Your task to perform on an android device: check the backup settings in the google photos Image 0: 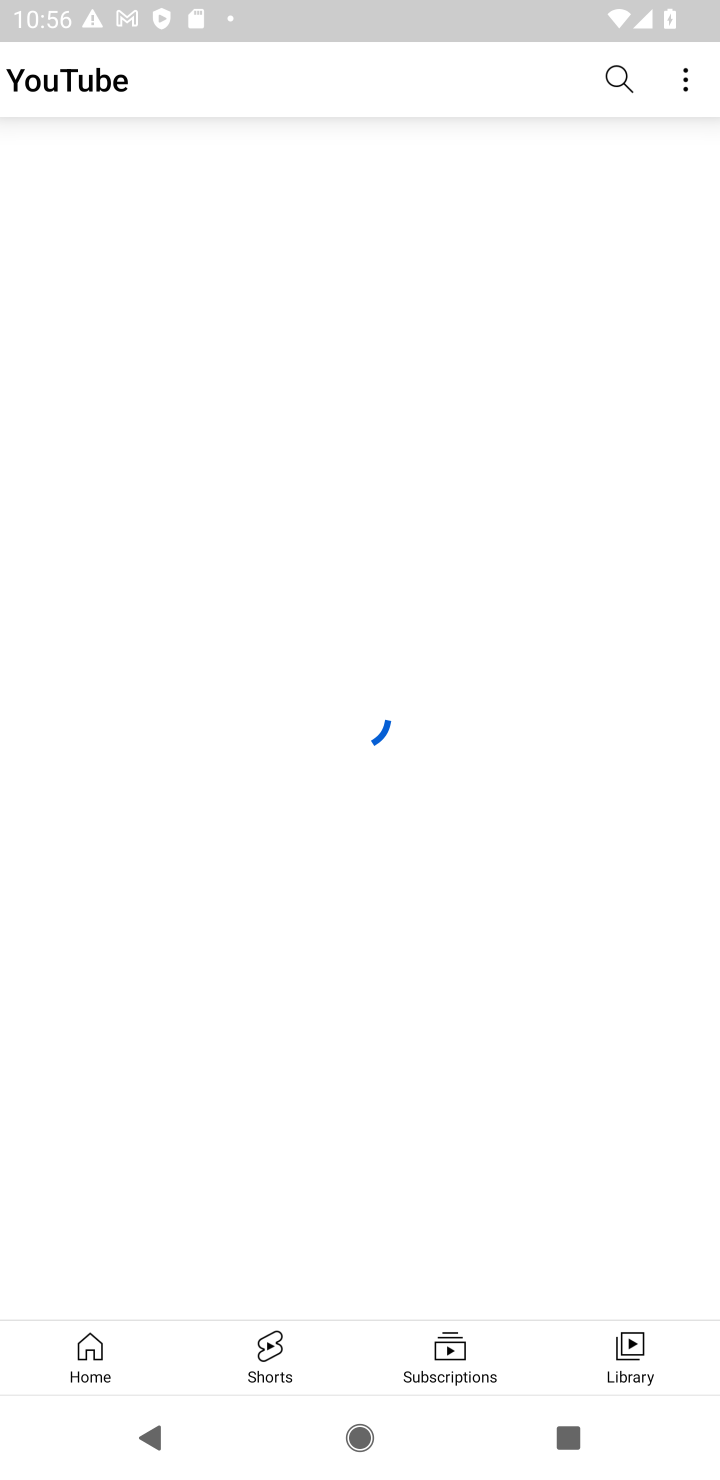
Step 0: press home button
Your task to perform on an android device: check the backup settings in the google photos Image 1: 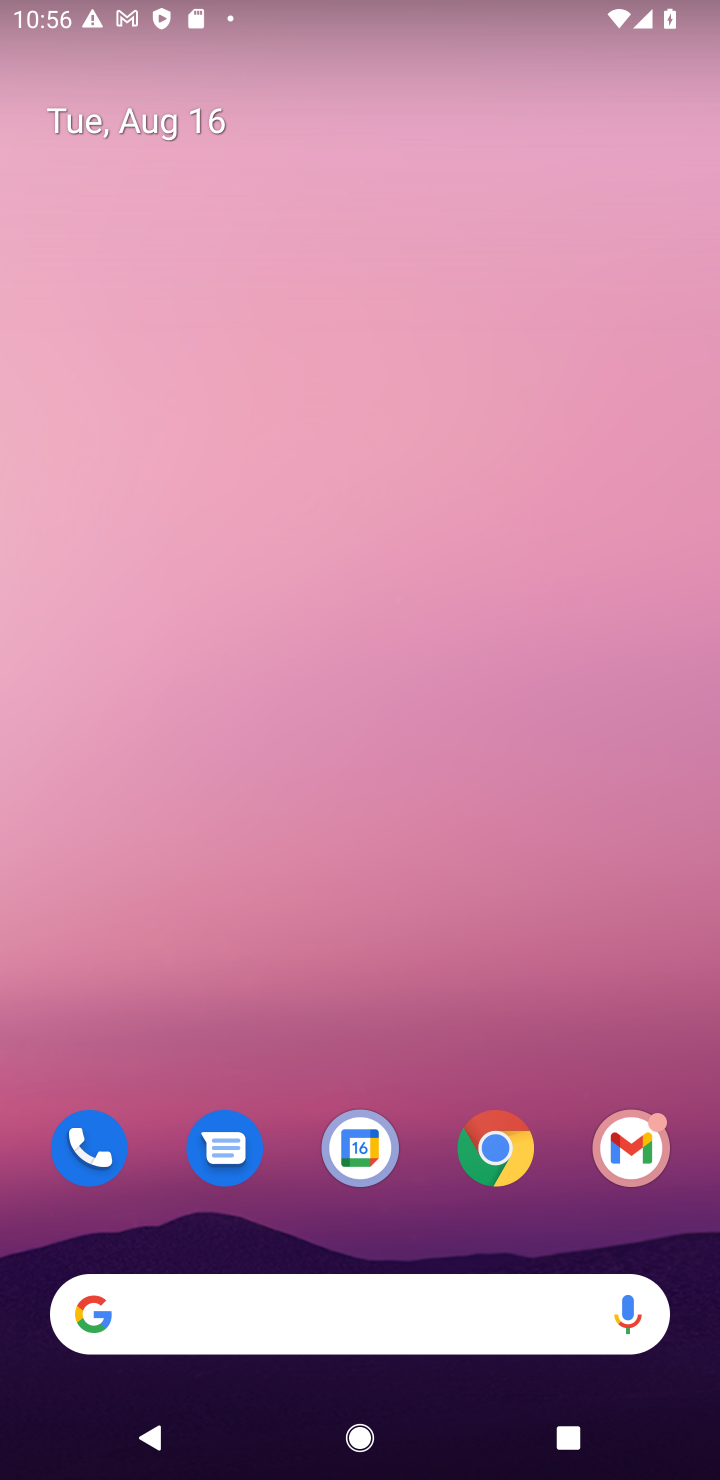
Step 1: drag from (393, 1051) to (344, 71)
Your task to perform on an android device: check the backup settings in the google photos Image 2: 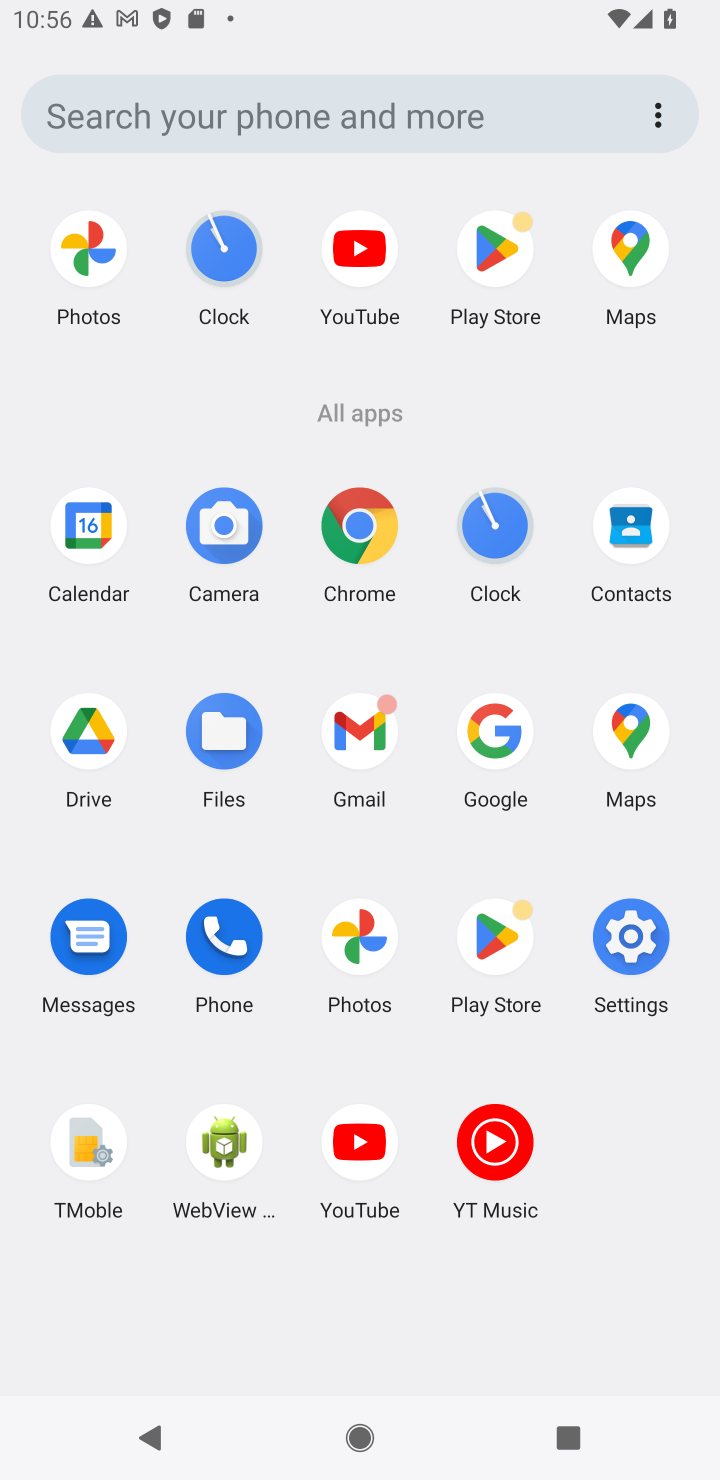
Step 2: click (375, 957)
Your task to perform on an android device: check the backup settings in the google photos Image 3: 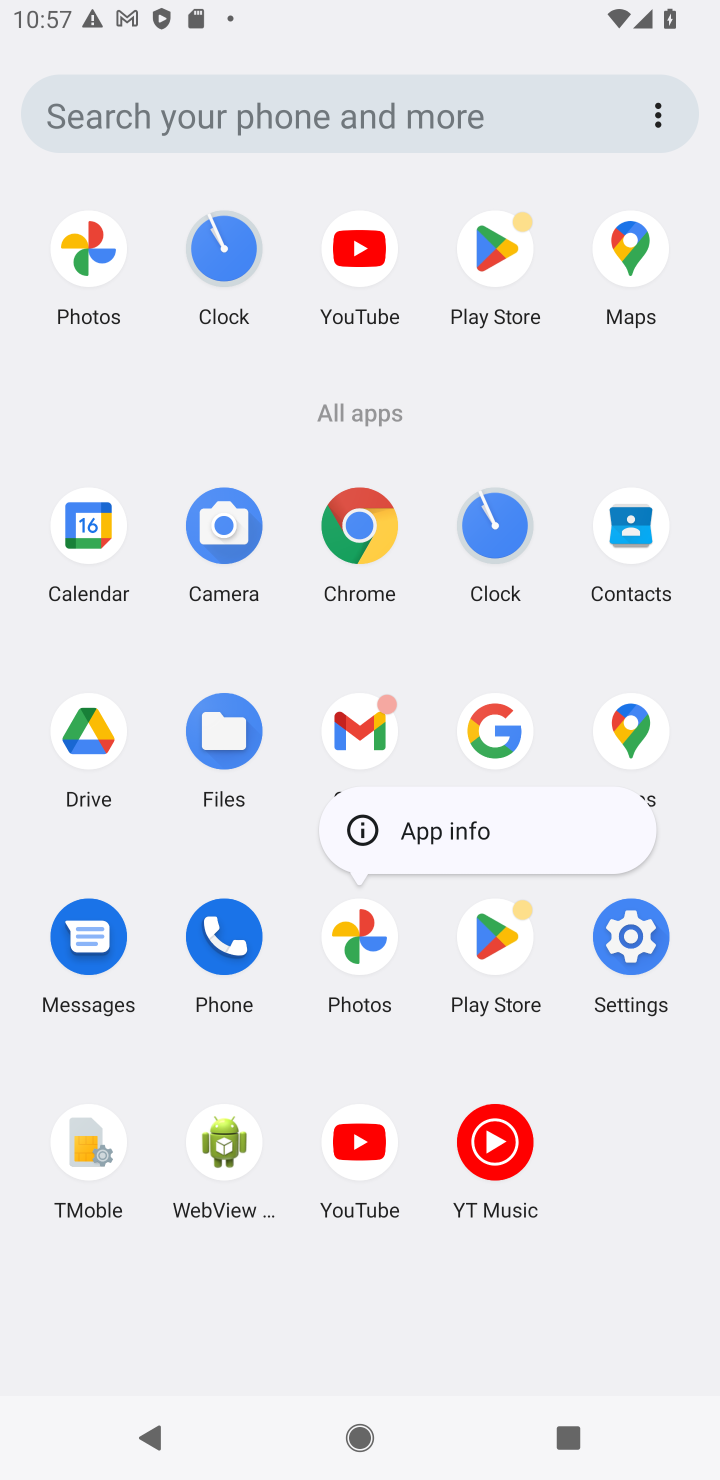
Step 3: click (359, 958)
Your task to perform on an android device: check the backup settings in the google photos Image 4: 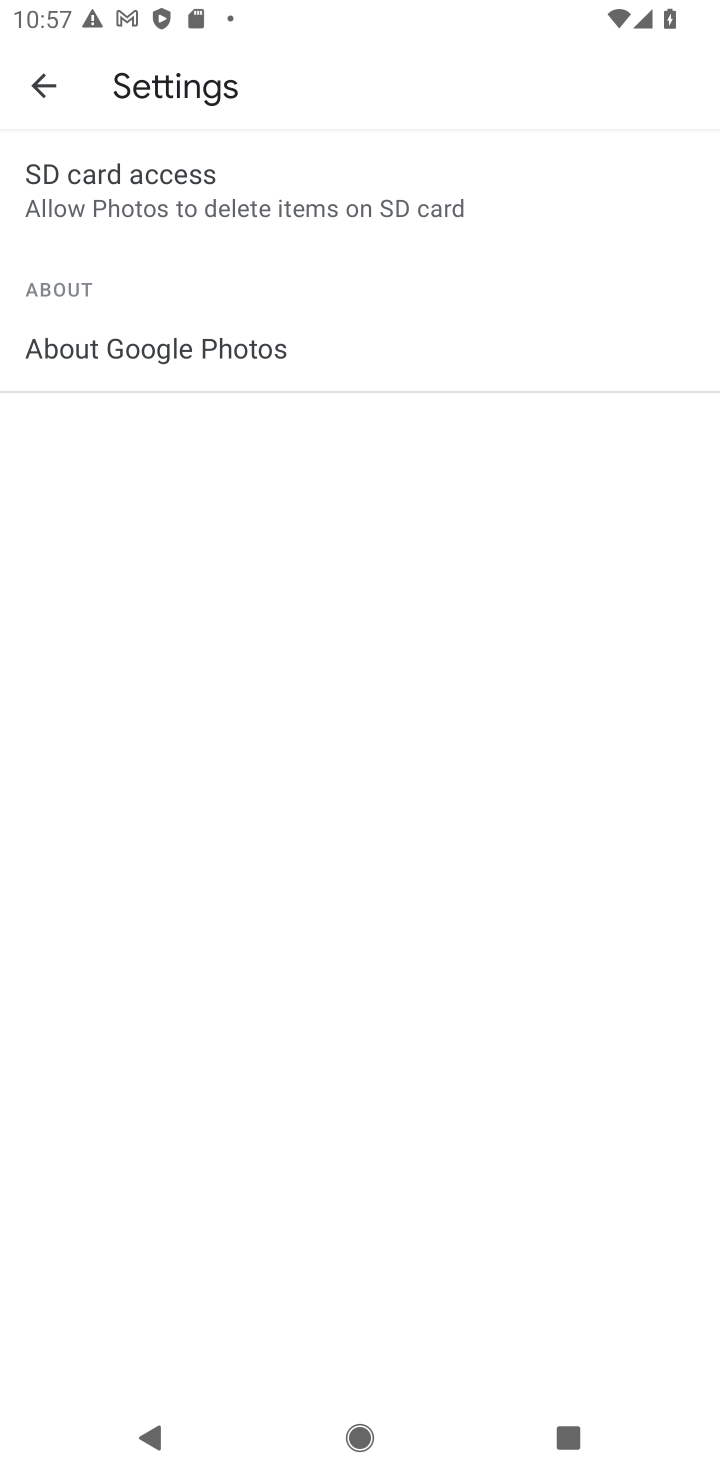
Step 4: click (40, 99)
Your task to perform on an android device: check the backup settings in the google photos Image 5: 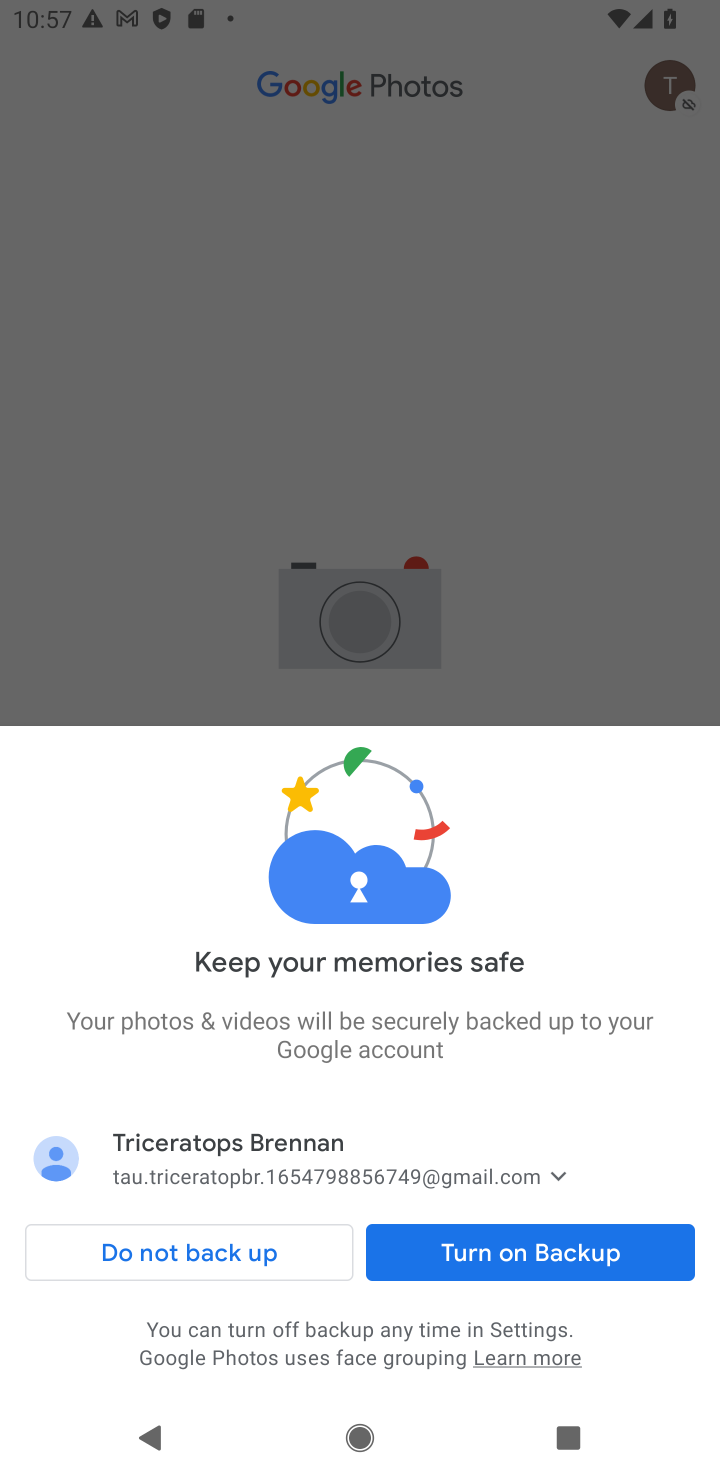
Step 5: click (296, 1264)
Your task to perform on an android device: check the backup settings in the google photos Image 6: 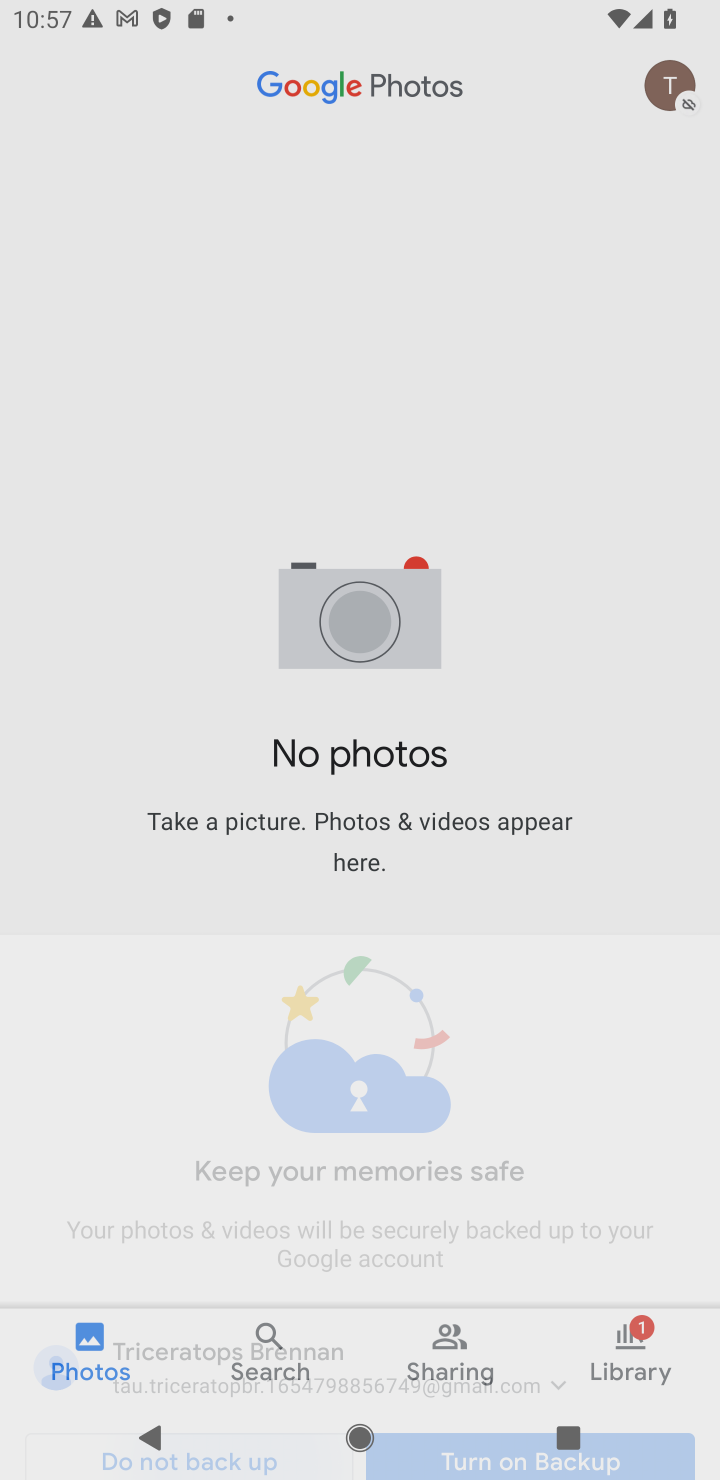
Step 6: click (296, 1264)
Your task to perform on an android device: check the backup settings in the google photos Image 7: 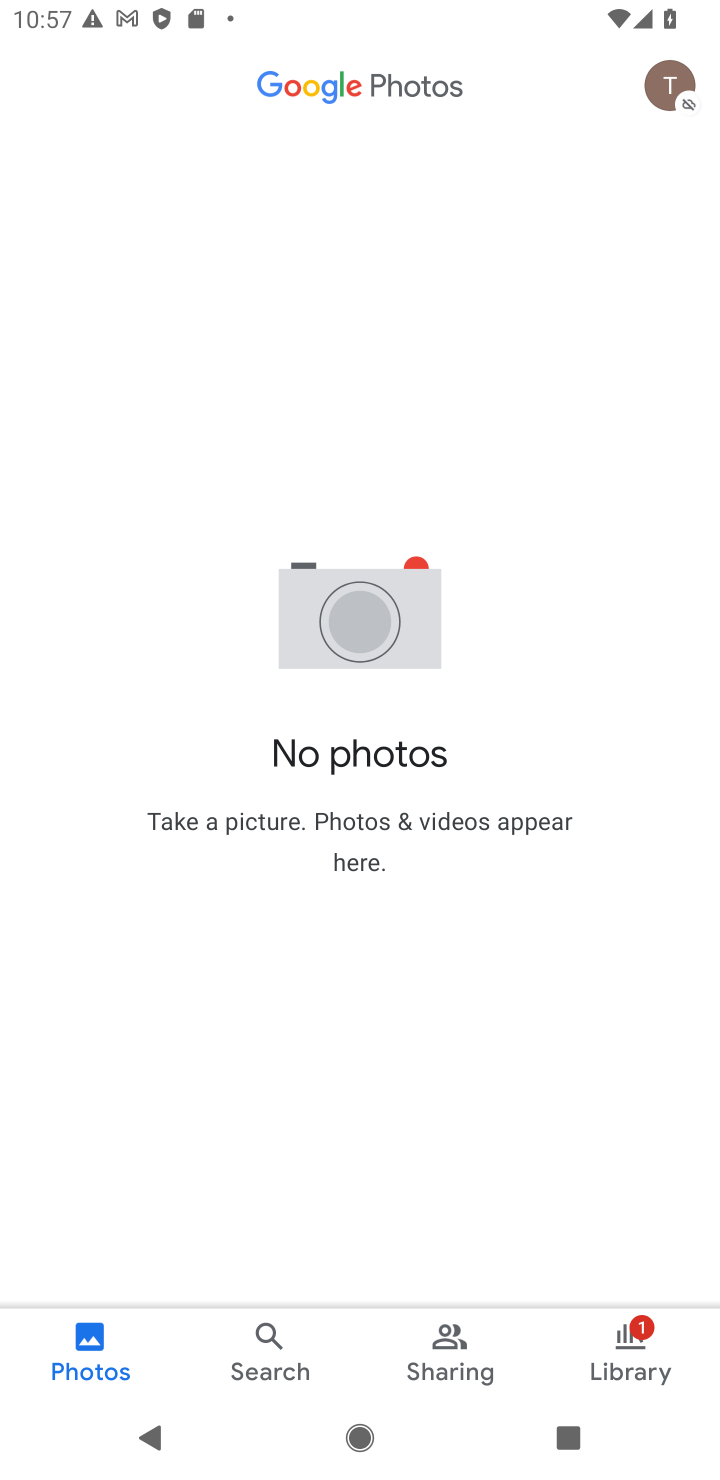
Step 7: click (296, 1264)
Your task to perform on an android device: check the backup settings in the google photos Image 8: 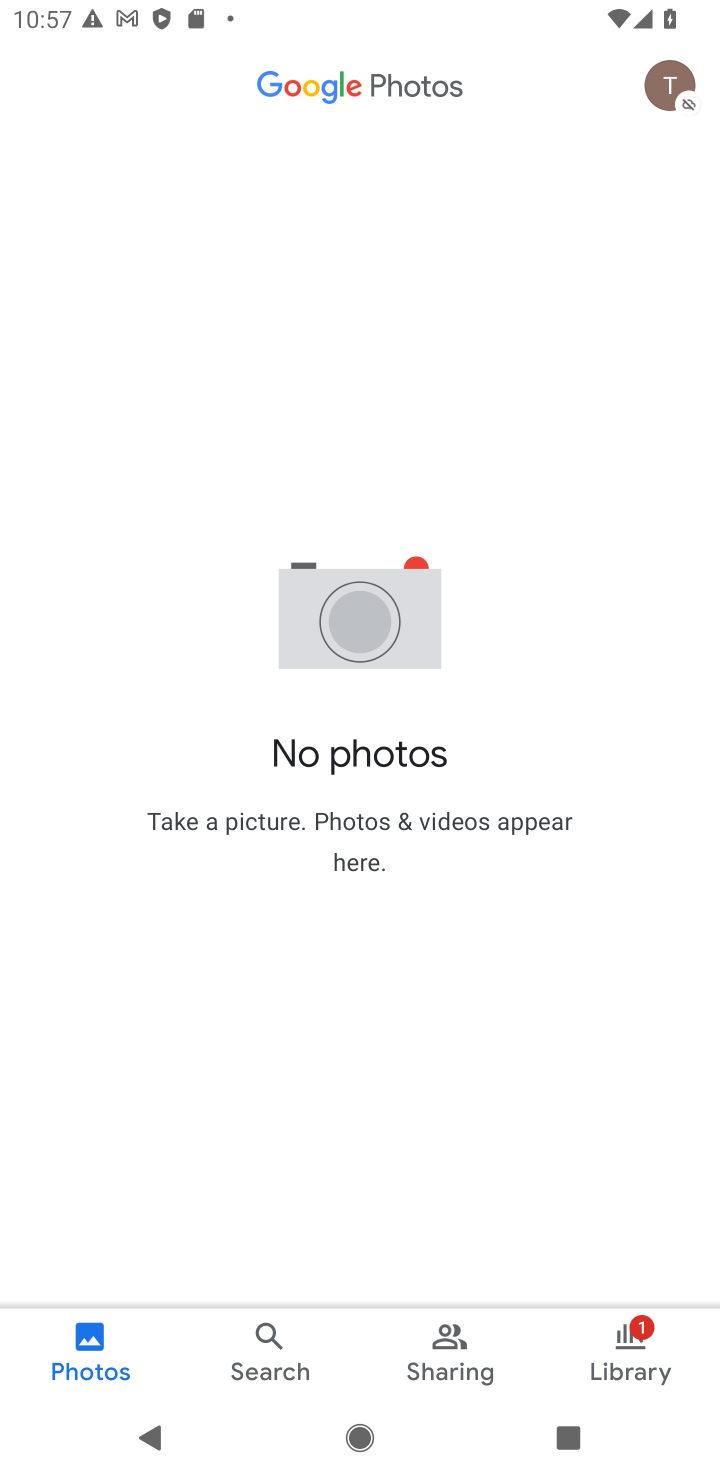
Step 8: click (669, 102)
Your task to perform on an android device: check the backup settings in the google photos Image 9: 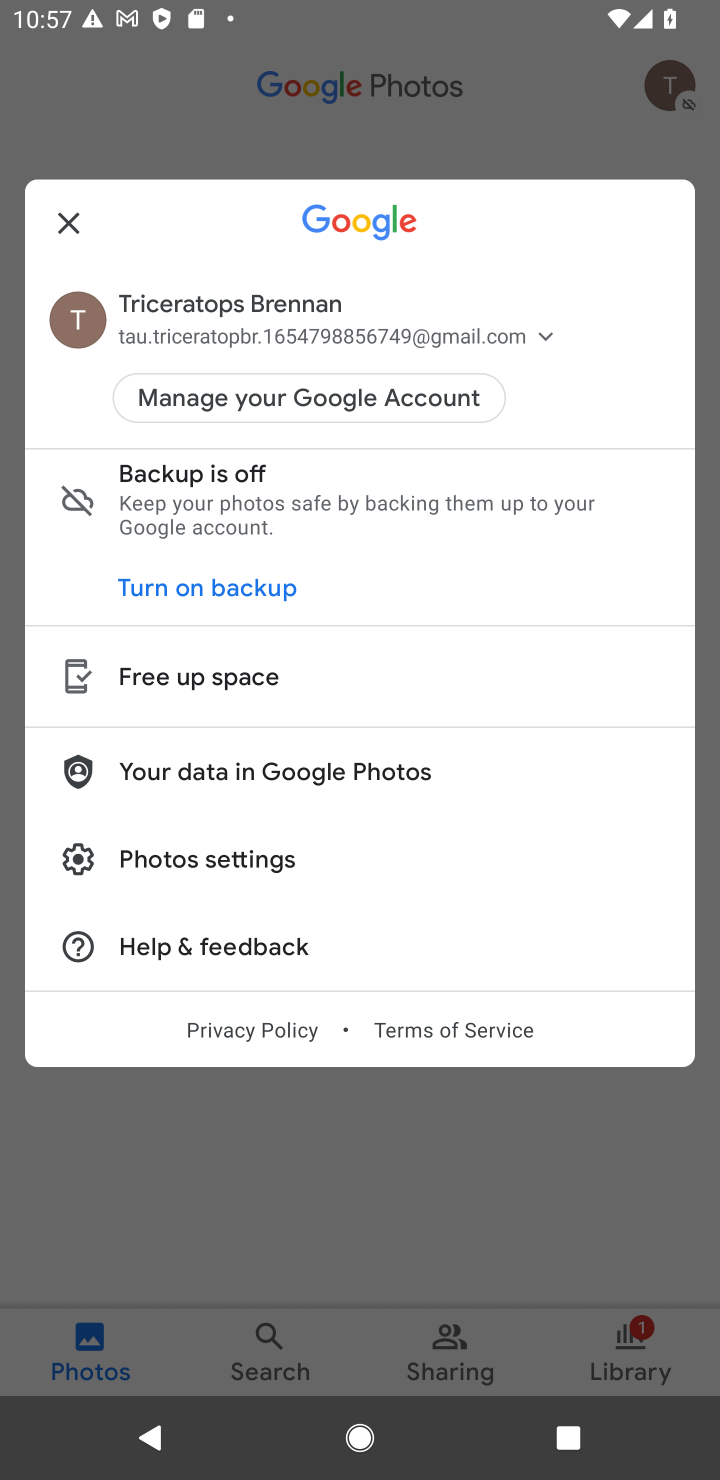
Step 9: click (226, 861)
Your task to perform on an android device: check the backup settings in the google photos Image 10: 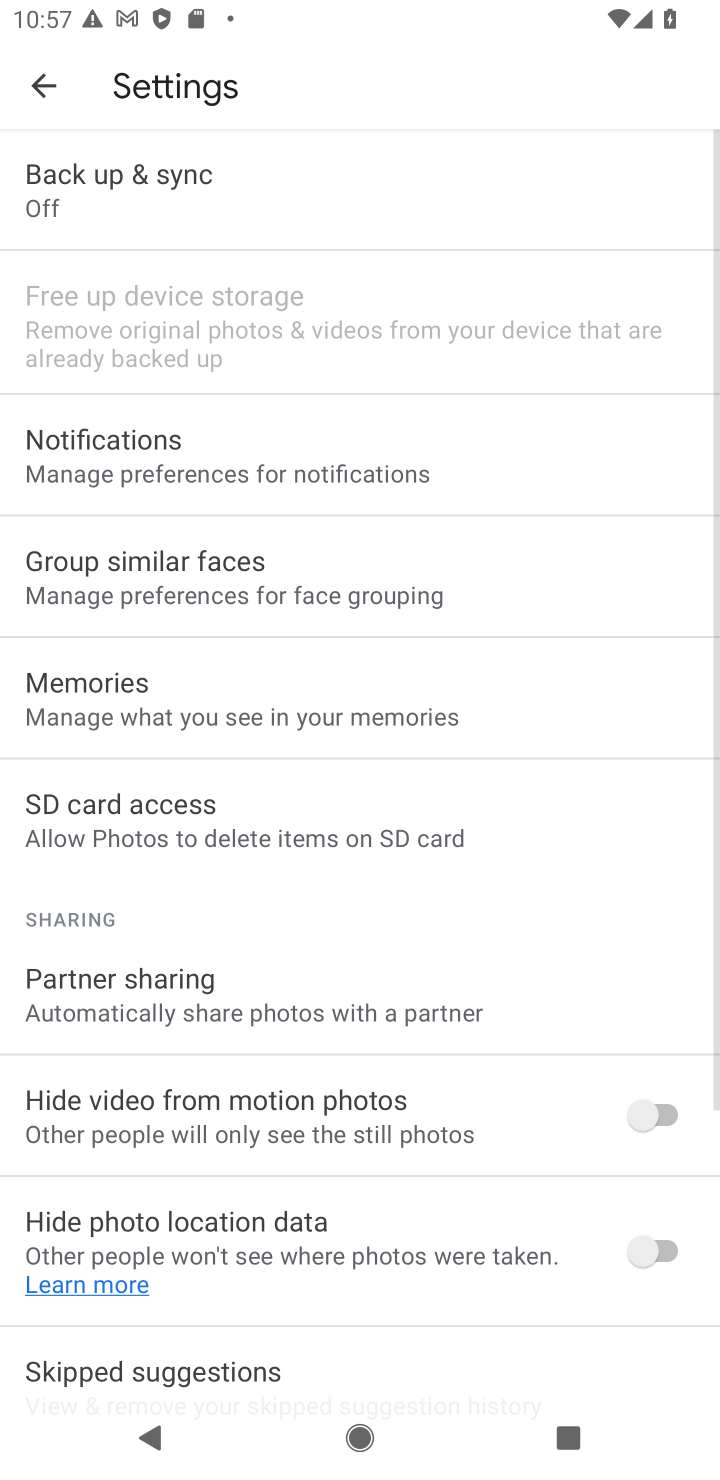
Step 10: click (138, 202)
Your task to perform on an android device: check the backup settings in the google photos Image 11: 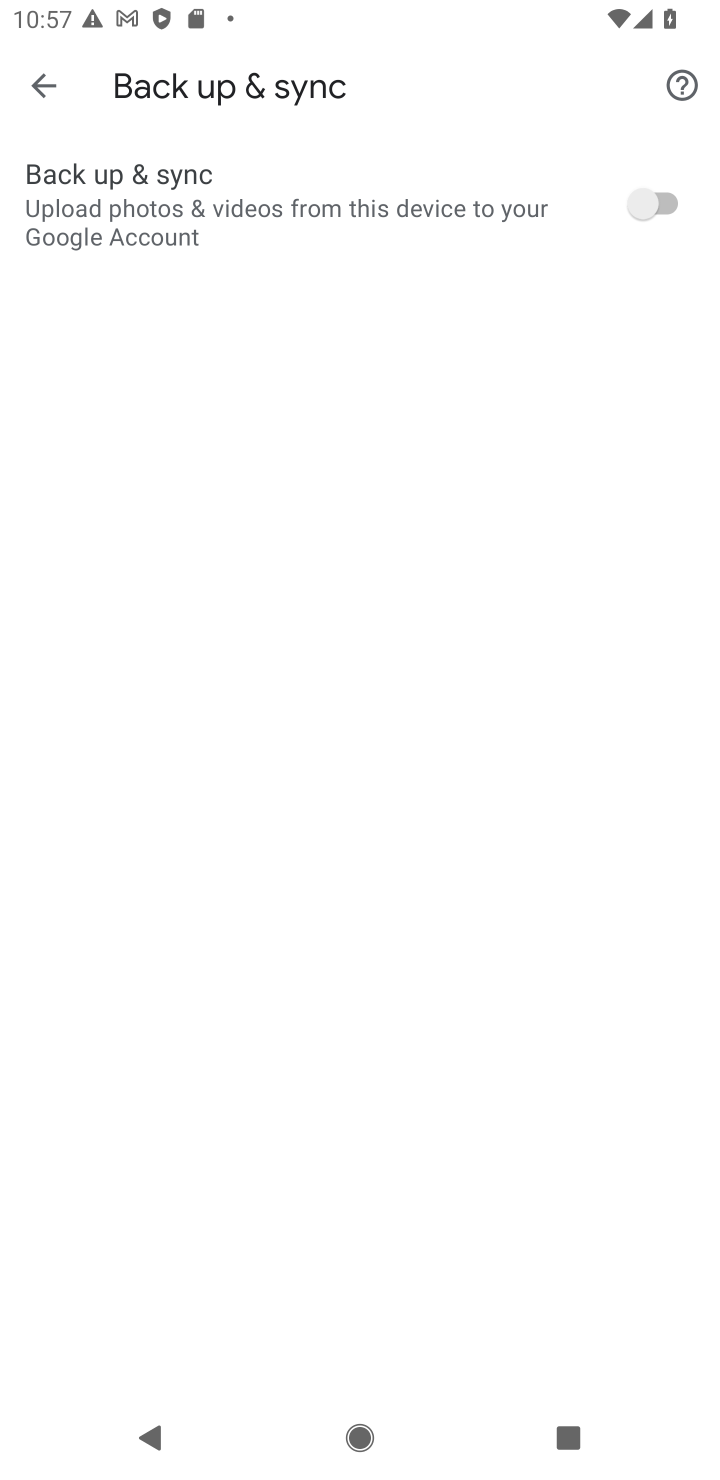
Step 11: click (52, 91)
Your task to perform on an android device: check the backup settings in the google photos Image 12: 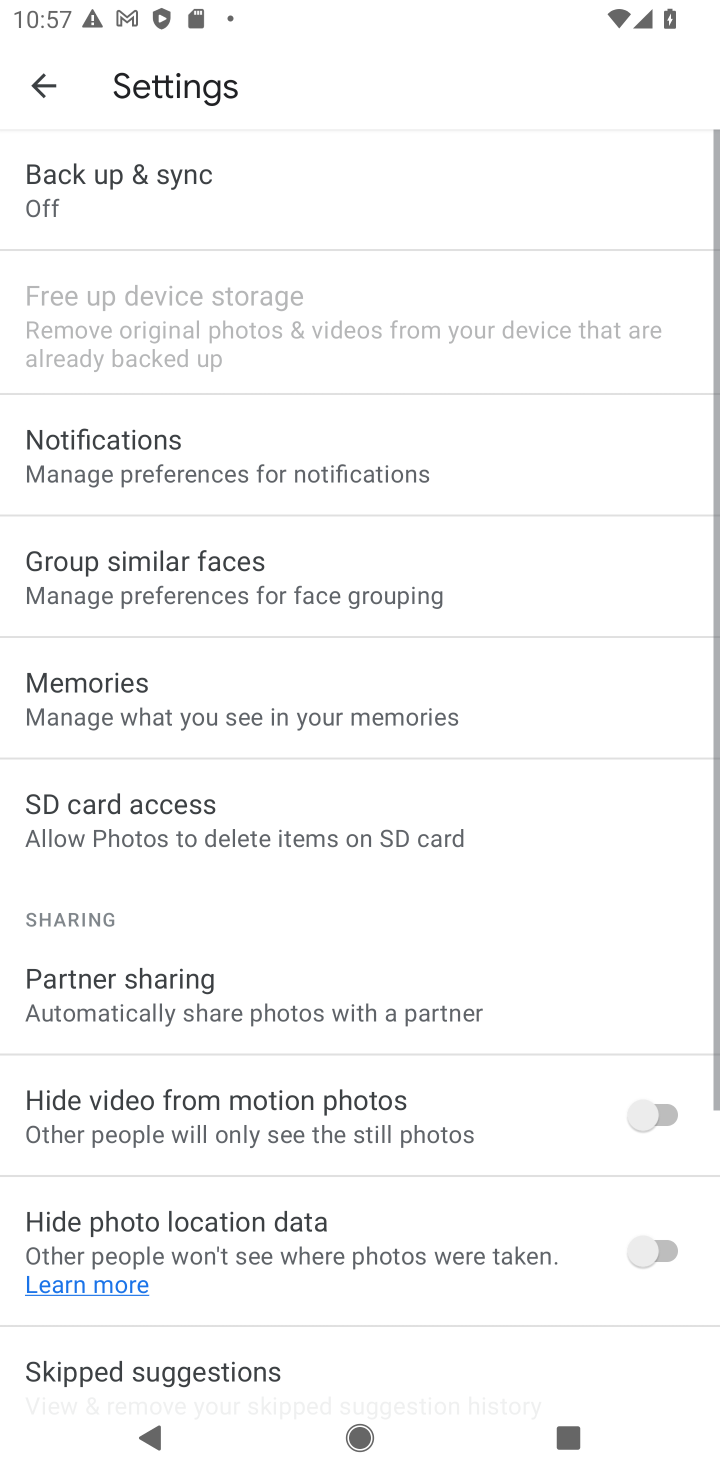
Step 12: task complete